Your task to perform on an android device: Check the weather Image 0: 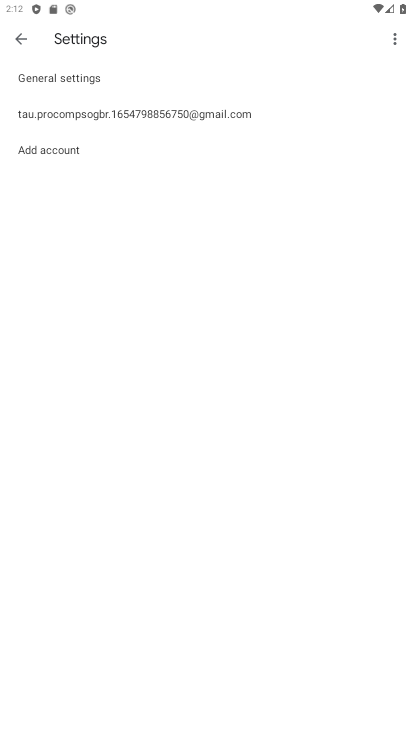
Step 0: press back button
Your task to perform on an android device: Check the weather Image 1: 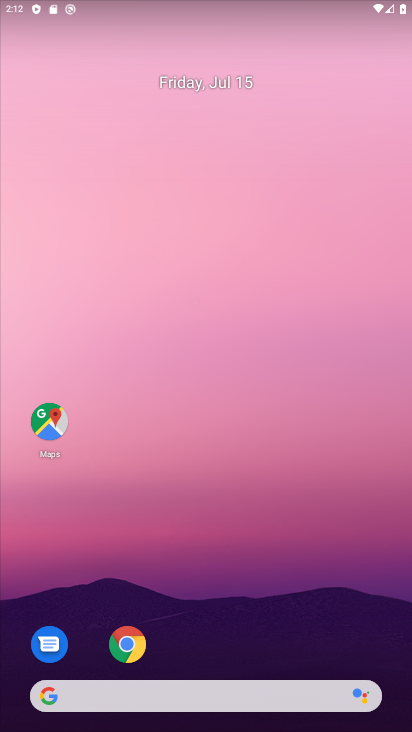
Step 1: click (158, 697)
Your task to perform on an android device: Check the weather Image 2: 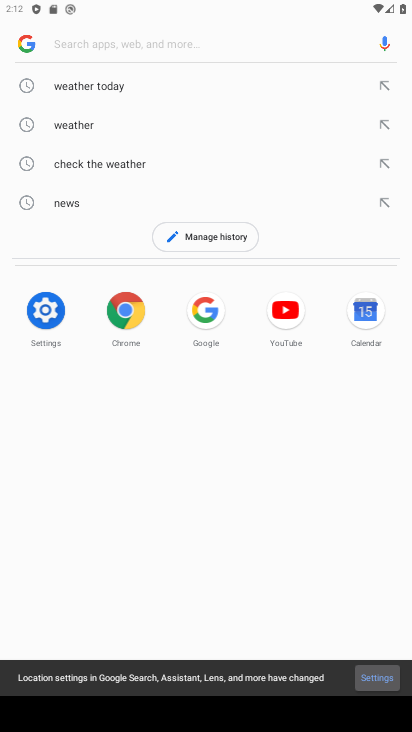
Step 2: click (73, 122)
Your task to perform on an android device: Check the weather Image 3: 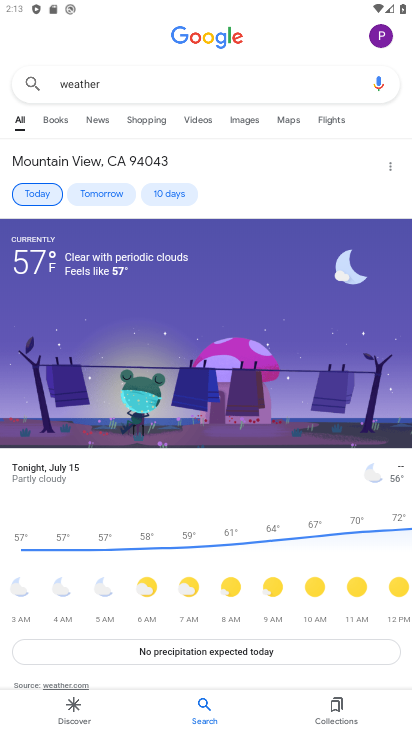
Step 3: task complete